Your task to perform on an android device: turn on the 24-hour format for clock Image 0: 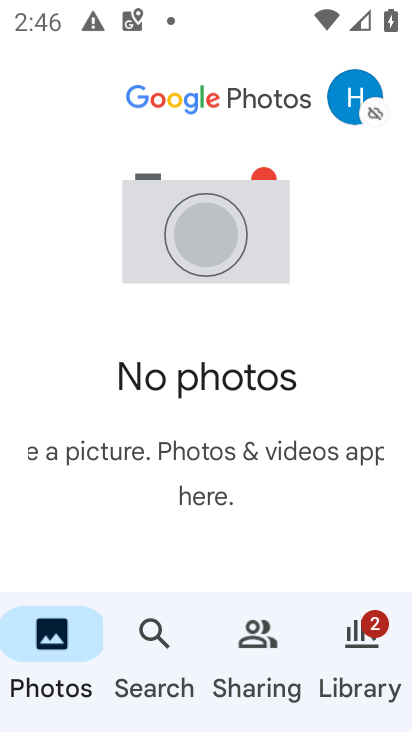
Step 0: press home button
Your task to perform on an android device: turn on the 24-hour format for clock Image 1: 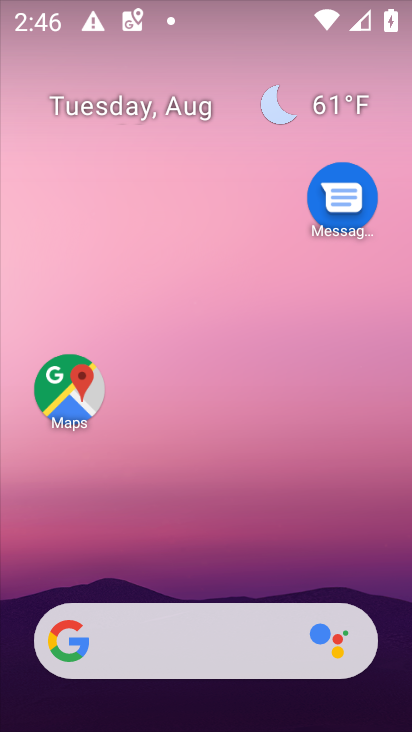
Step 1: drag from (204, 601) to (214, 12)
Your task to perform on an android device: turn on the 24-hour format for clock Image 2: 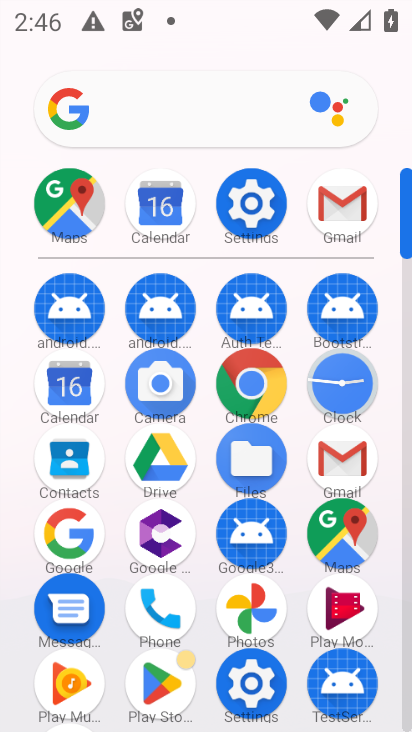
Step 2: click (347, 382)
Your task to perform on an android device: turn on the 24-hour format for clock Image 3: 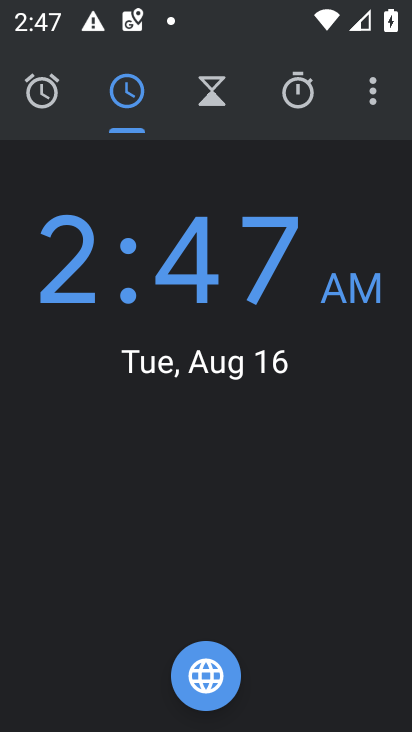
Step 3: click (372, 84)
Your task to perform on an android device: turn on the 24-hour format for clock Image 4: 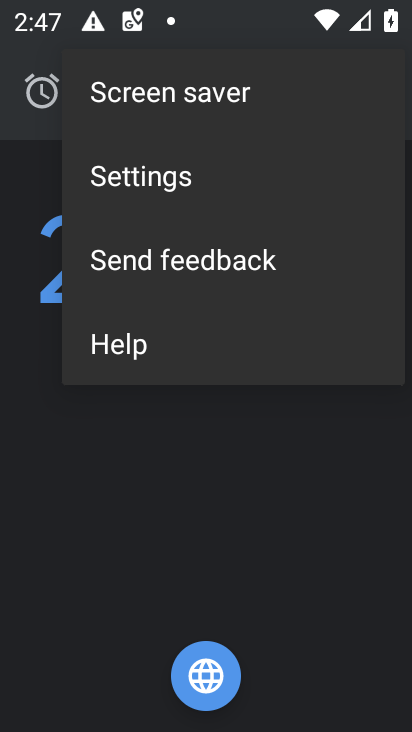
Step 4: click (247, 186)
Your task to perform on an android device: turn on the 24-hour format for clock Image 5: 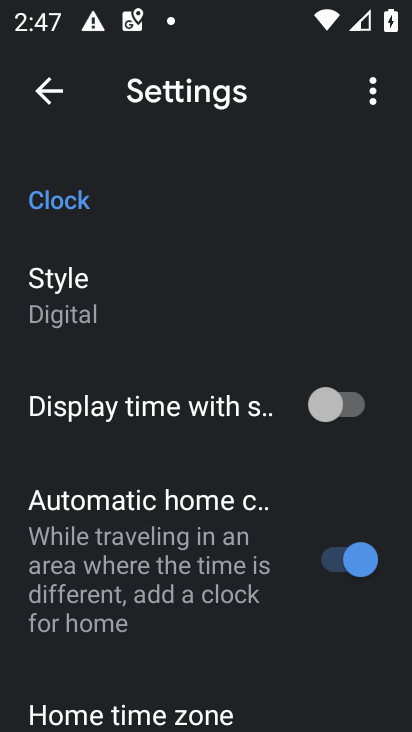
Step 5: click (76, 306)
Your task to perform on an android device: turn on the 24-hour format for clock Image 6: 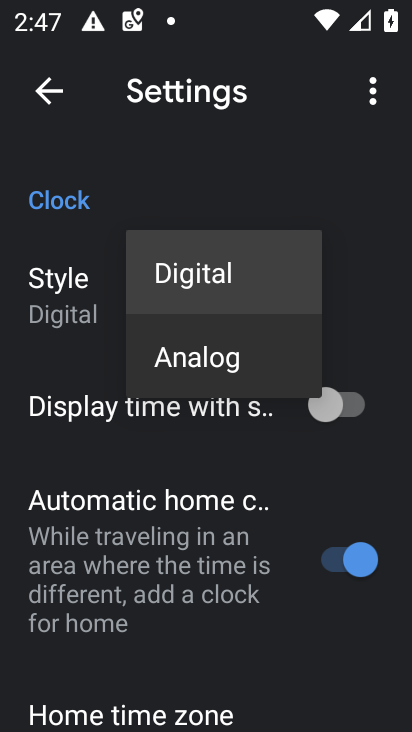
Step 6: click (139, 565)
Your task to perform on an android device: turn on the 24-hour format for clock Image 7: 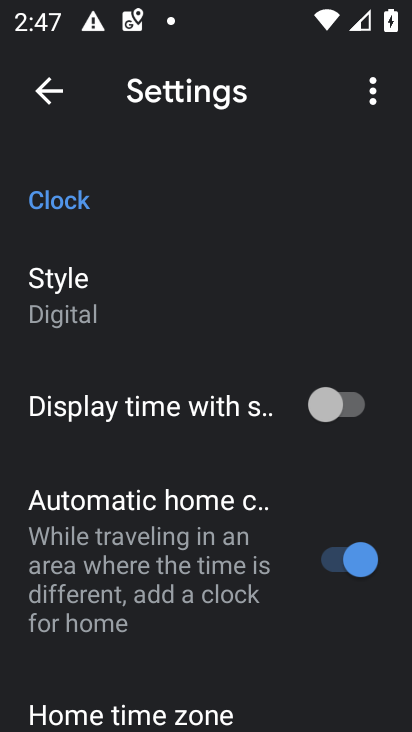
Step 7: drag from (163, 680) to (148, 337)
Your task to perform on an android device: turn on the 24-hour format for clock Image 8: 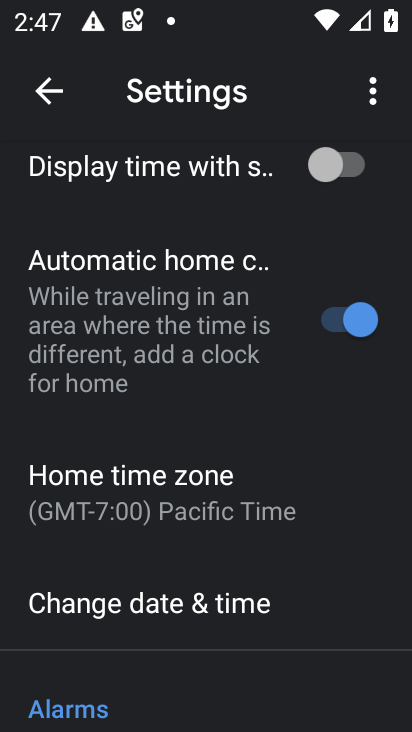
Step 8: click (158, 604)
Your task to perform on an android device: turn on the 24-hour format for clock Image 9: 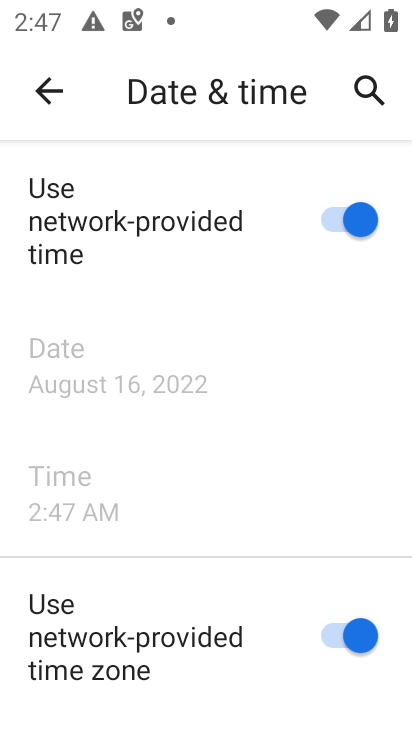
Step 9: drag from (145, 456) to (172, 210)
Your task to perform on an android device: turn on the 24-hour format for clock Image 10: 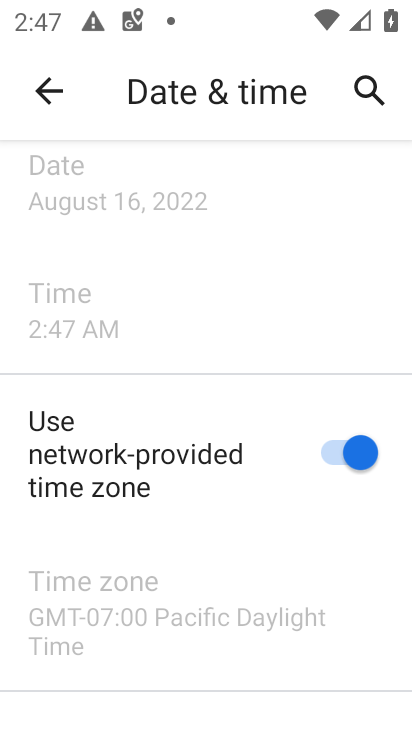
Step 10: drag from (219, 572) to (219, 240)
Your task to perform on an android device: turn on the 24-hour format for clock Image 11: 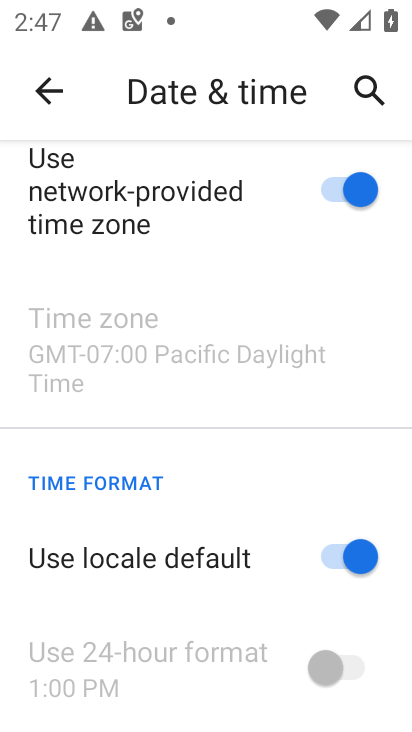
Step 11: click (326, 548)
Your task to perform on an android device: turn on the 24-hour format for clock Image 12: 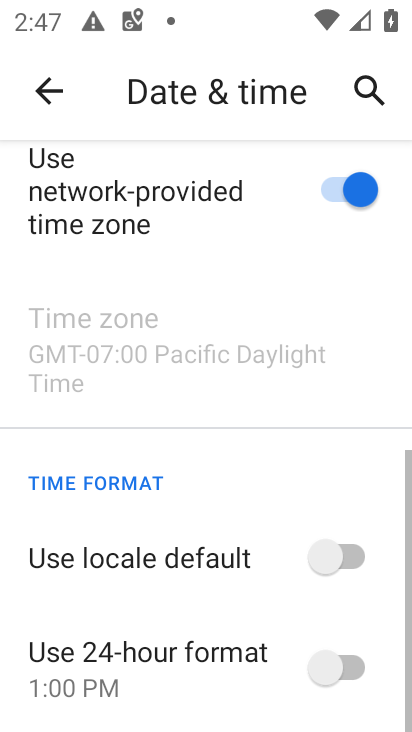
Step 12: click (350, 664)
Your task to perform on an android device: turn on the 24-hour format for clock Image 13: 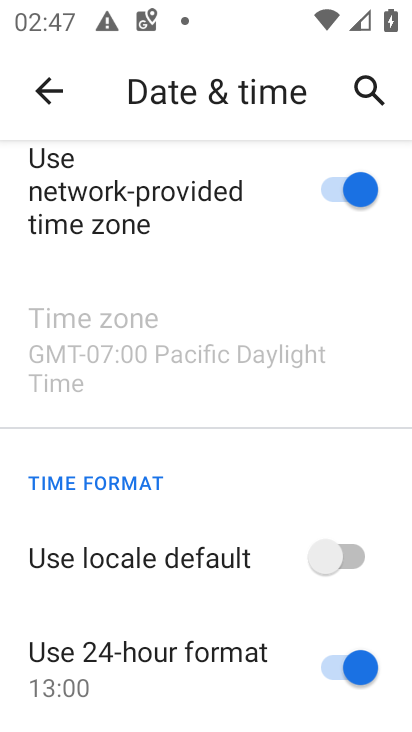
Step 13: task complete